Your task to perform on an android device: Set the phone to "Do not disturb". Image 0: 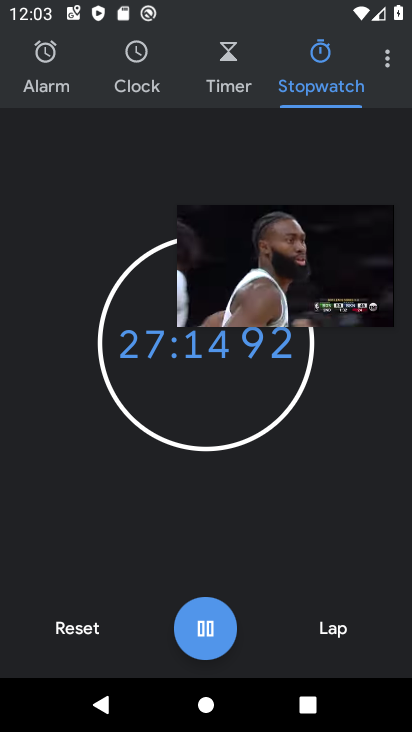
Step 0: press home button
Your task to perform on an android device: Set the phone to "Do not disturb". Image 1: 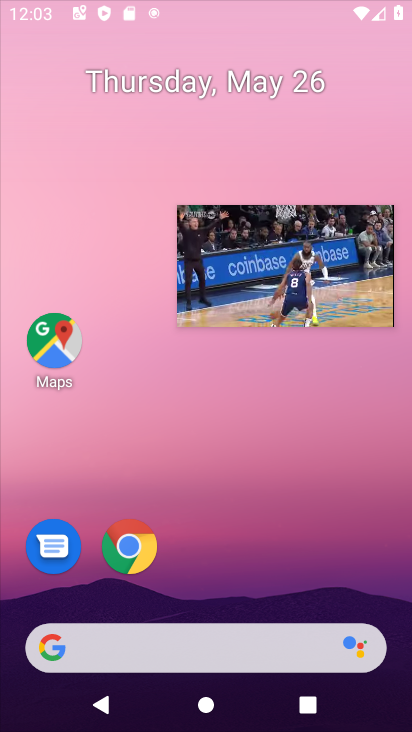
Step 1: drag from (239, 540) to (245, 2)
Your task to perform on an android device: Set the phone to "Do not disturb". Image 2: 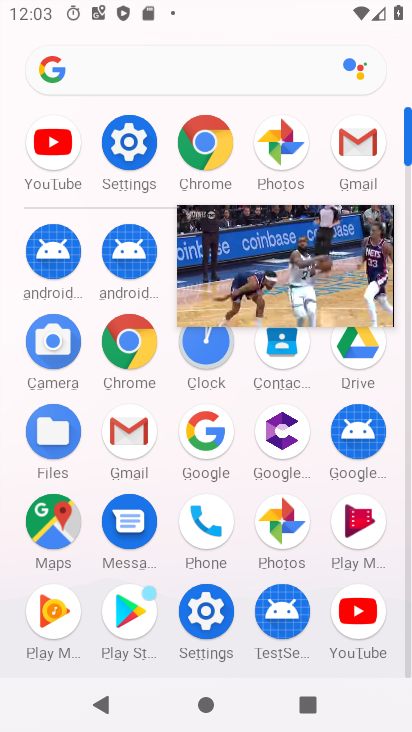
Step 2: click (126, 132)
Your task to perform on an android device: Set the phone to "Do not disturb". Image 3: 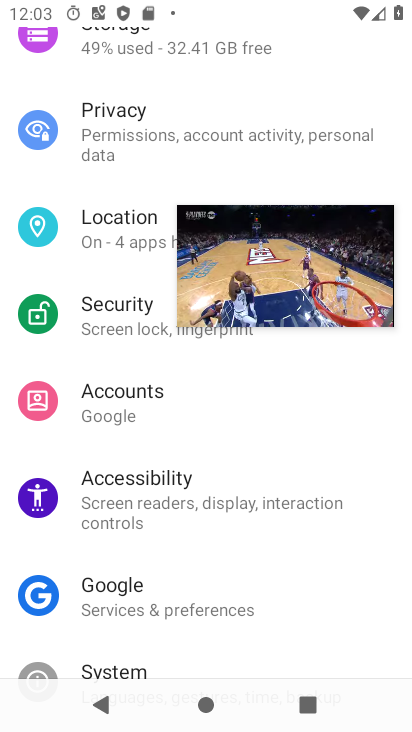
Step 3: drag from (120, 181) to (152, 492)
Your task to perform on an android device: Set the phone to "Do not disturb". Image 4: 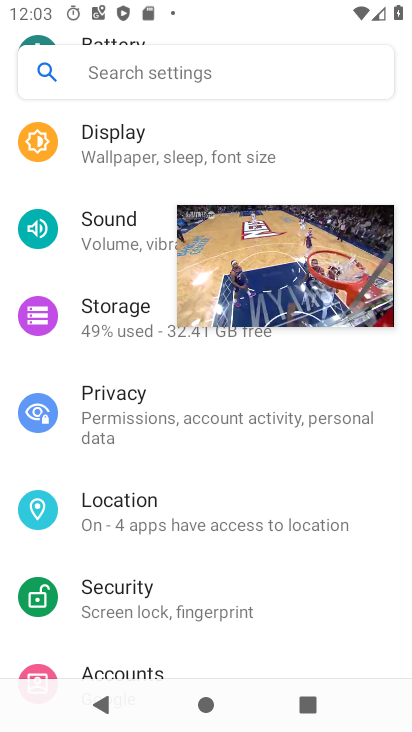
Step 4: drag from (118, 194) to (116, 497)
Your task to perform on an android device: Set the phone to "Do not disturb". Image 5: 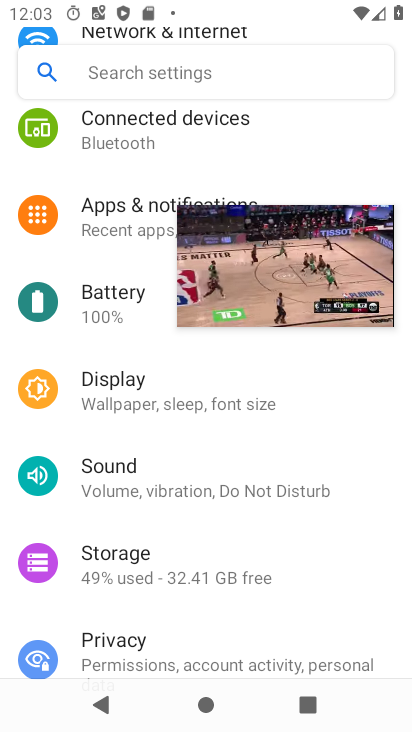
Step 5: click (127, 483)
Your task to perform on an android device: Set the phone to "Do not disturb". Image 6: 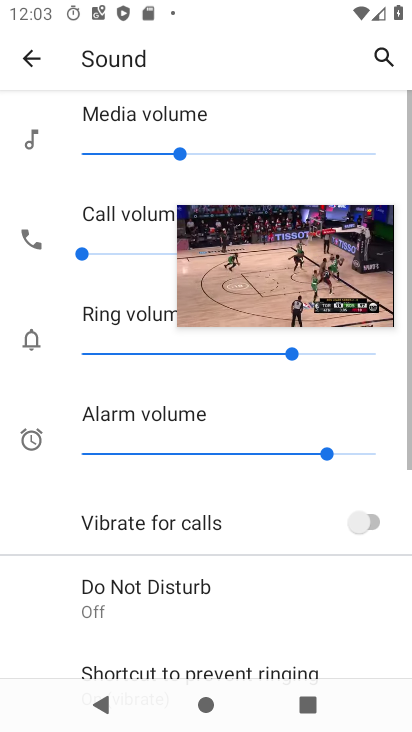
Step 6: click (128, 603)
Your task to perform on an android device: Set the phone to "Do not disturb". Image 7: 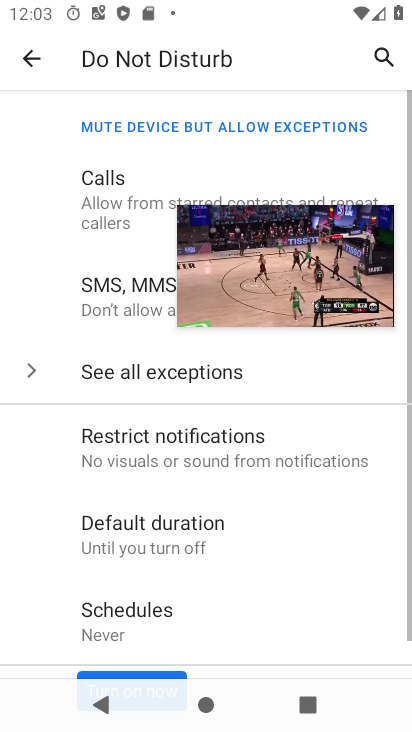
Step 7: drag from (128, 594) to (182, 180)
Your task to perform on an android device: Set the phone to "Do not disturb". Image 8: 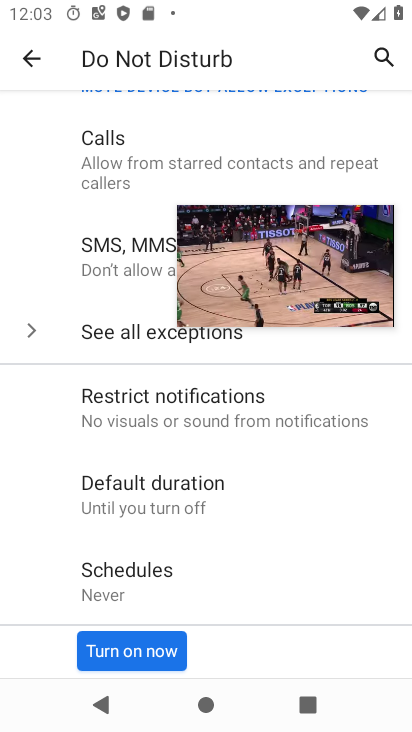
Step 8: click (171, 642)
Your task to perform on an android device: Set the phone to "Do not disturb". Image 9: 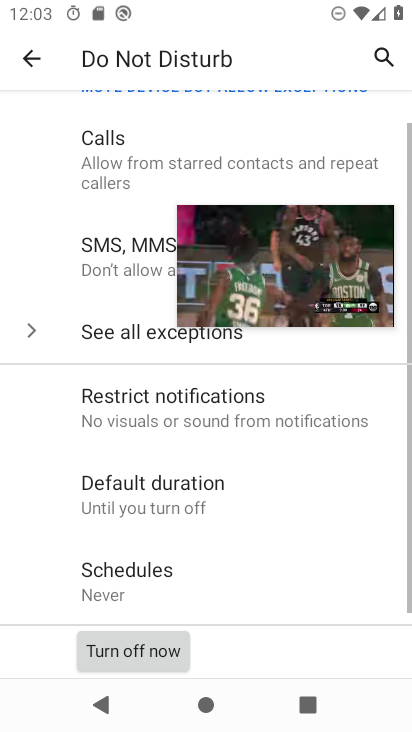
Step 9: task complete